Your task to perform on an android device: Open location settings Image 0: 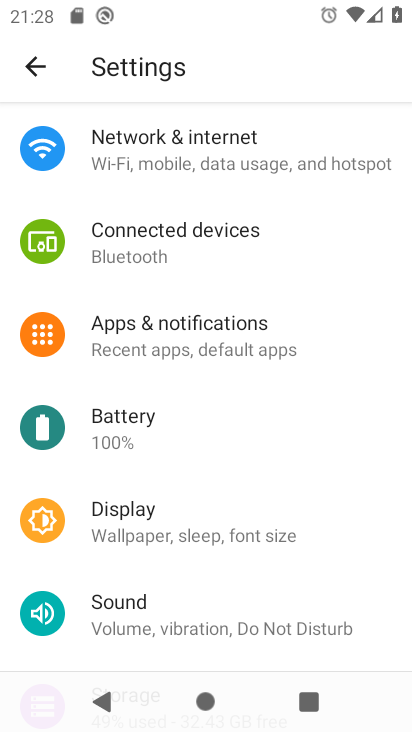
Step 0: drag from (253, 456) to (247, 111)
Your task to perform on an android device: Open location settings Image 1: 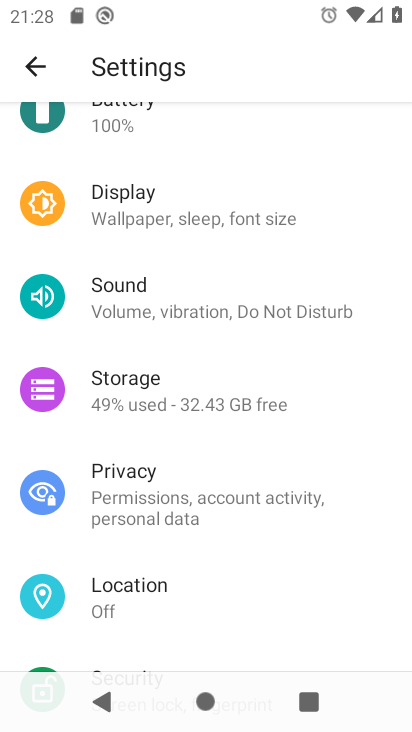
Step 1: click (148, 590)
Your task to perform on an android device: Open location settings Image 2: 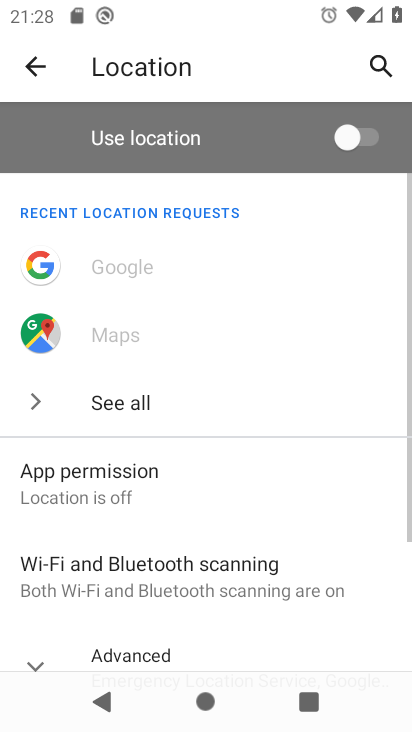
Step 2: click (369, 121)
Your task to perform on an android device: Open location settings Image 3: 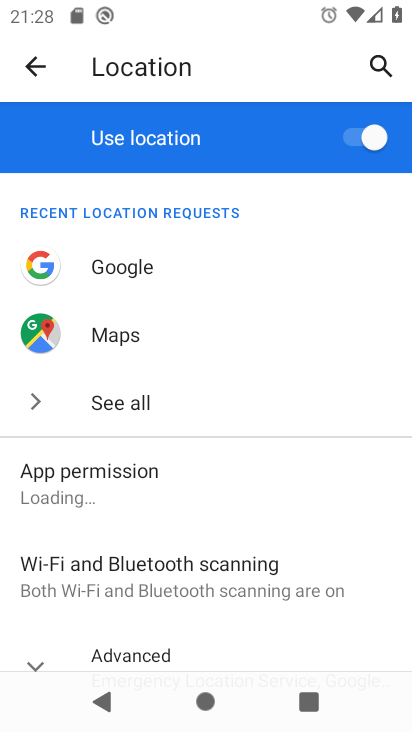
Step 3: task complete